Your task to perform on an android device: Open Android settings Image 0: 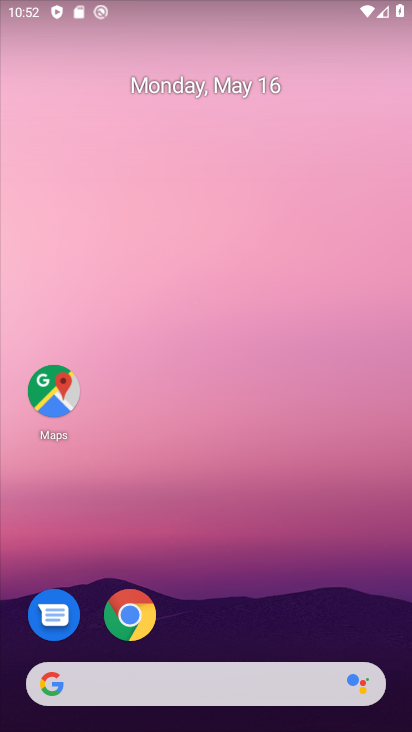
Step 0: drag from (242, 595) to (283, 180)
Your task to perform on an android device: Open Android settings Image 1: 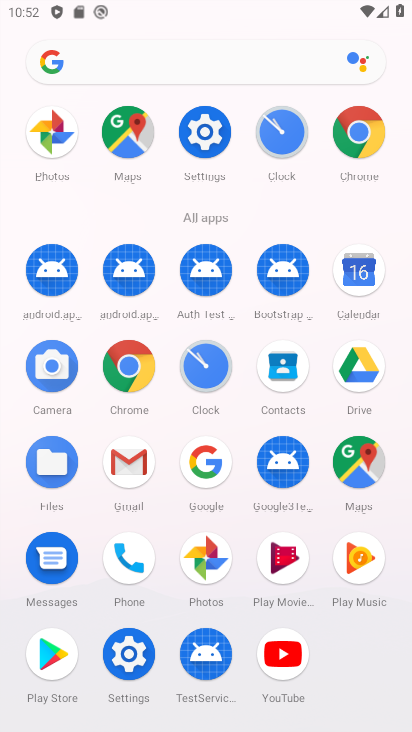
Step 1: click (129, 645)
Your task to perform on an android device: Open Android settings Image 2: 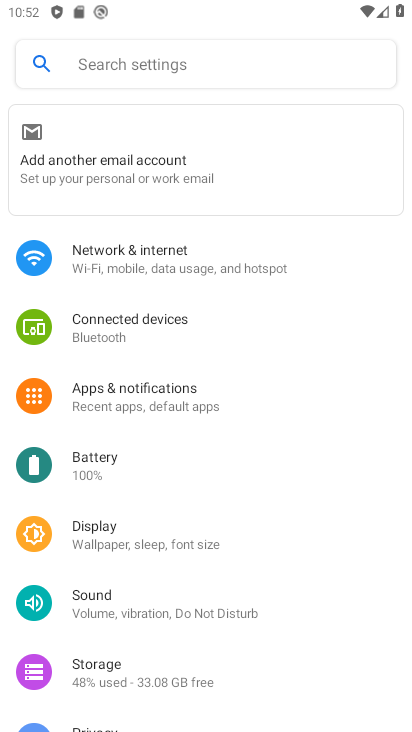
Step 2: drag from (318, 619) to (265, 60)
Your task to perform on an android device: Open Android settings Image 3: 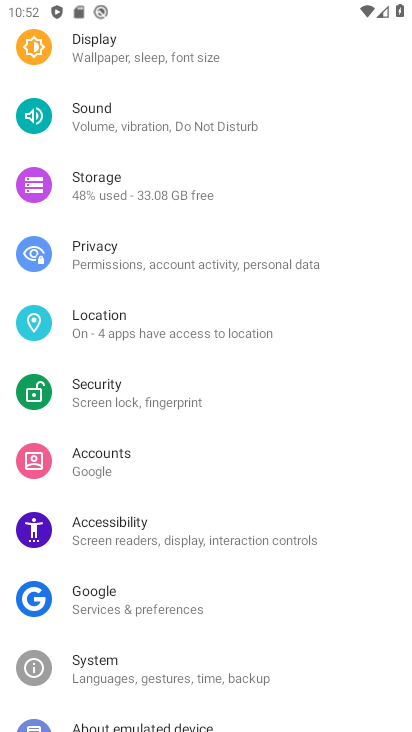
Step 3: drag from (318, 648) to (294, 35)
Your task to perform on an android device: Open Android settings Image 4: 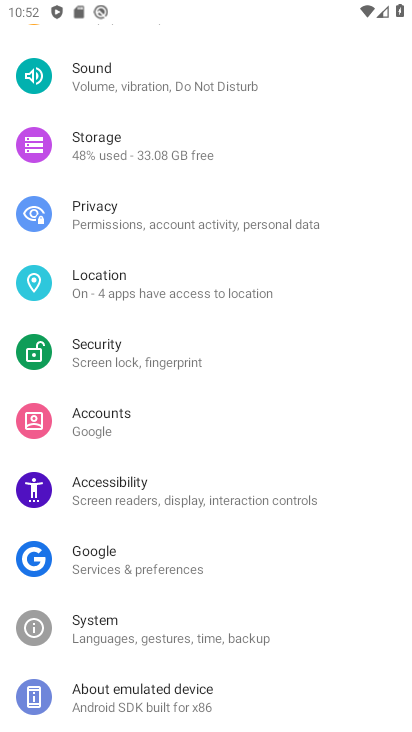
Step 4: click (178, 692)
Your task to perform on an android device: Open Android settings Image 5: 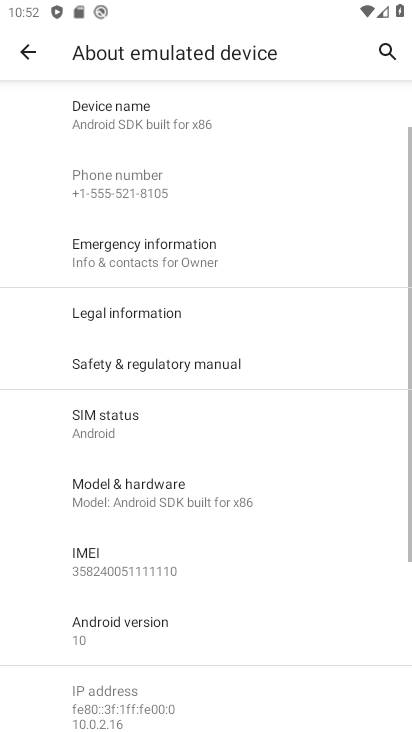
Step 5: click (110, 620)
Your task to perform on an android device: Open Android settings Image 6: 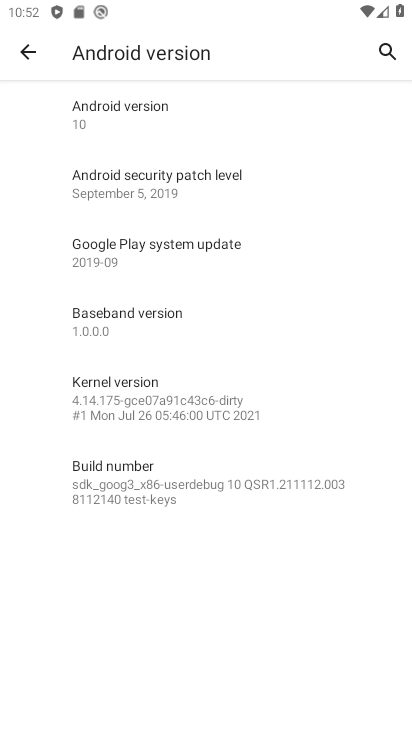
Step 6: task complete